Your task to perform on an android device: delete browsing data in the chrome app Image 0: 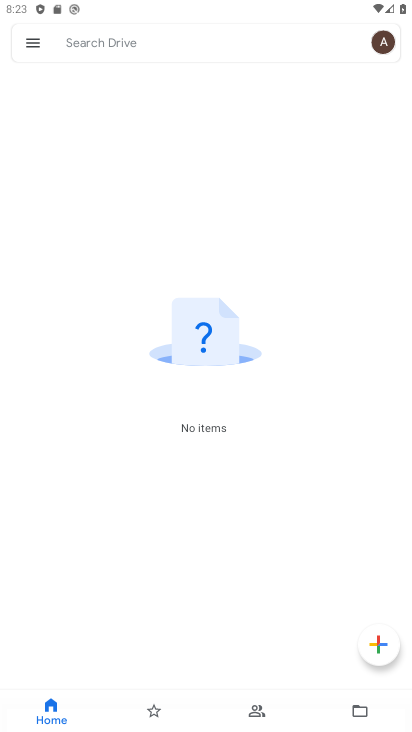
Step 0: press home button
Your task to perform on an android device: delete browsing data in the chrome app Image 1: 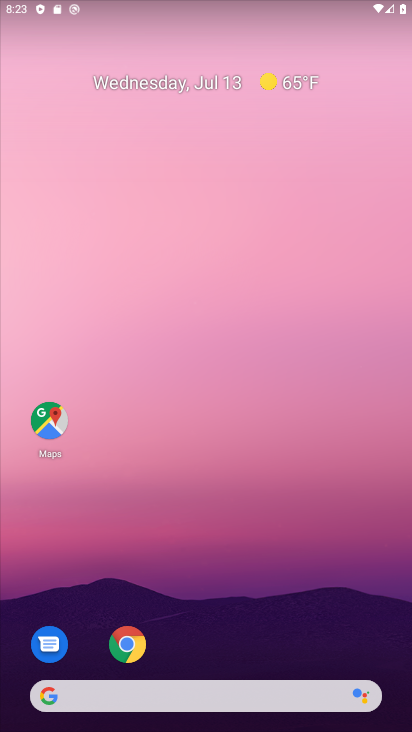
Step 1: drag from (290, 611) to (164, 61)
Your task to perform on an android device: delete browsing data in the chrome app Image 2: 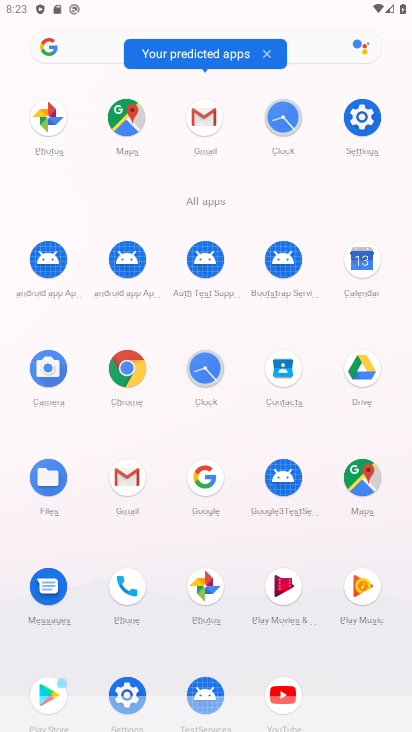
Step 2: click (129, 374)
Your task to perform on an android device: delete browsing data in the chrome app Image 3: 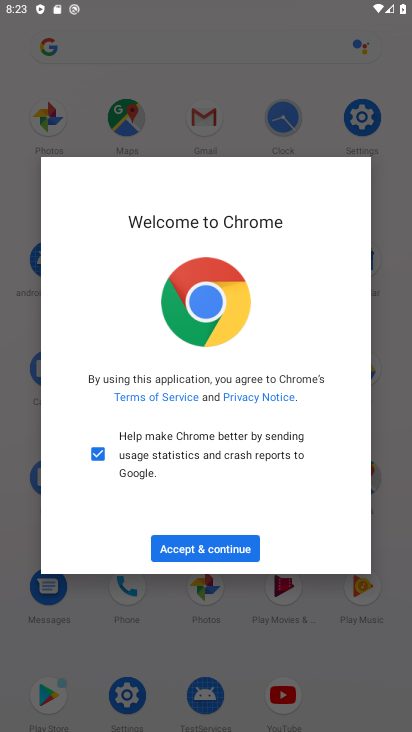
Step 3: click (198, 546)
Your task to perform on an android device: delete browsing data in the chrome app Image 4: 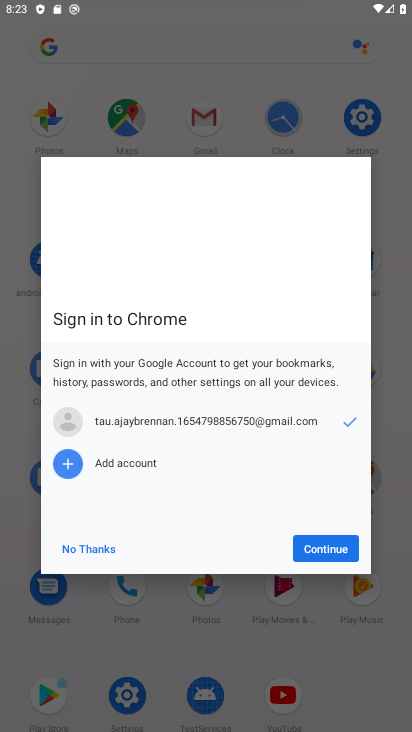
Step 4: click (102, 538)
Your task to perform on an android device: delete browsing data in the chrome app Image 5: 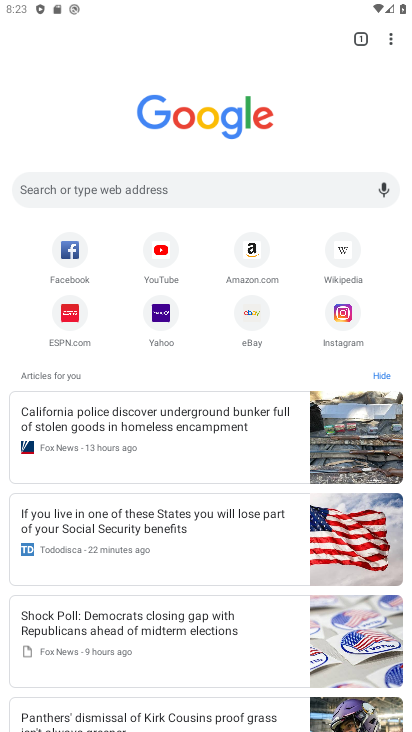
Step 5: task complete